Your task to perform on an android device: How do I get to the nearest T-Mobile Store? Image 0: 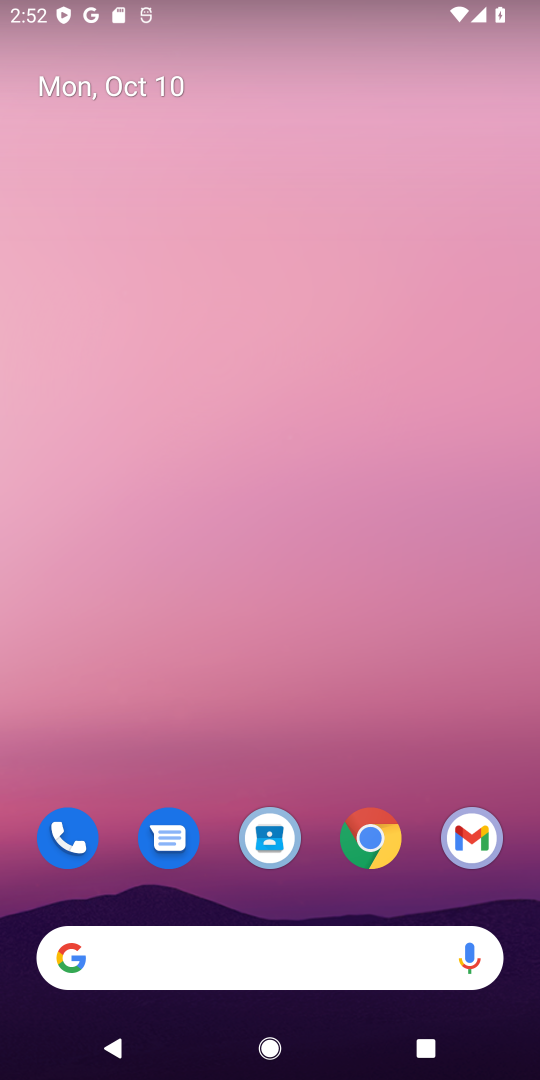
Step 0: click (229, 956)
Your task to perform on an android device: How do I get to the nearest T-Mobile Store? Image 1: 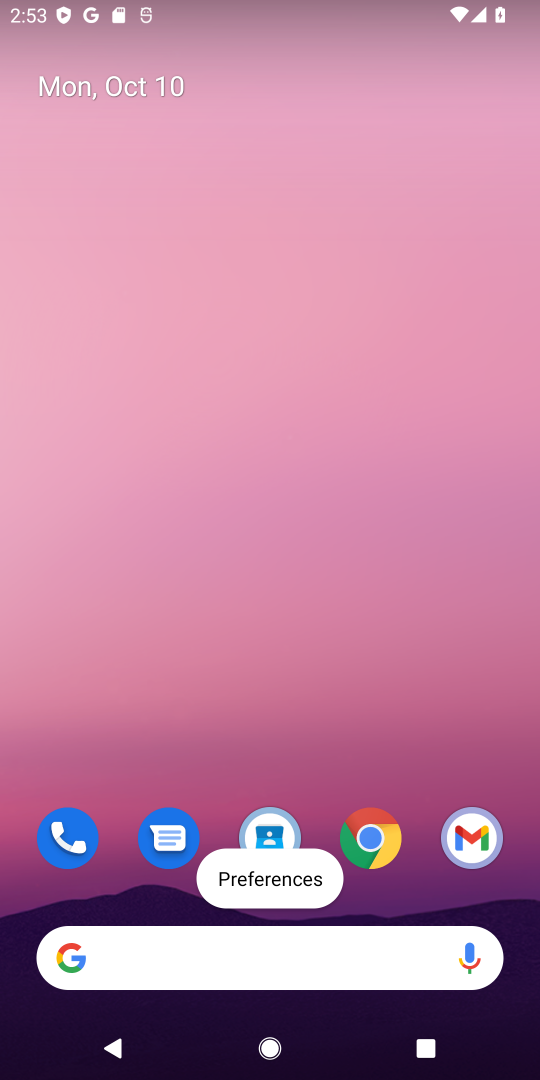
Step 1: click (211, 969)
Your task to perform on an android device: How do I get to the nearest T-Mobile Store? Image 2: 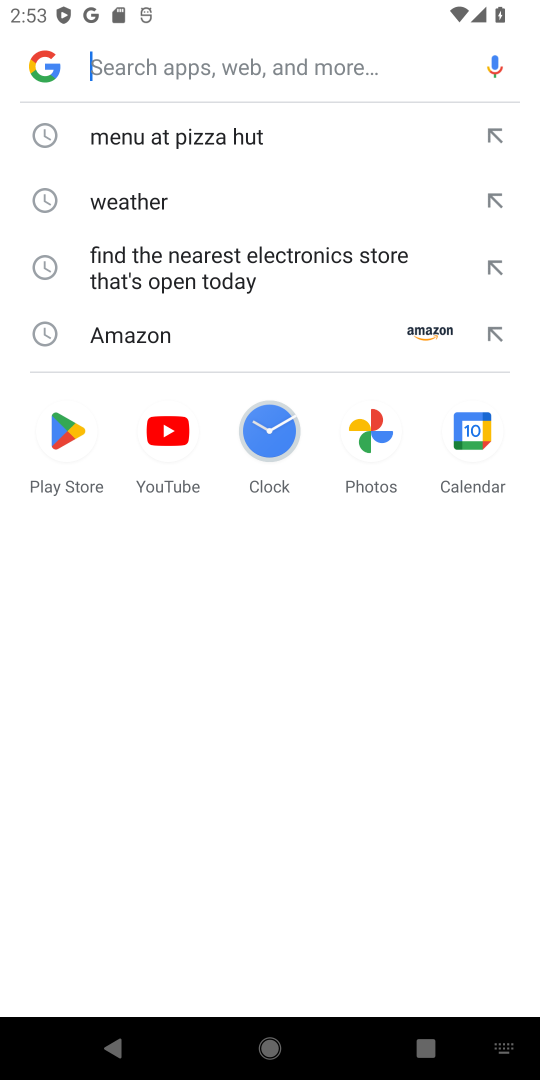
Step 2: type "nearest T-Mobile Store"
Your task to perform on an android device: How do I get to the nearest T-Mobile Store? Image 3: 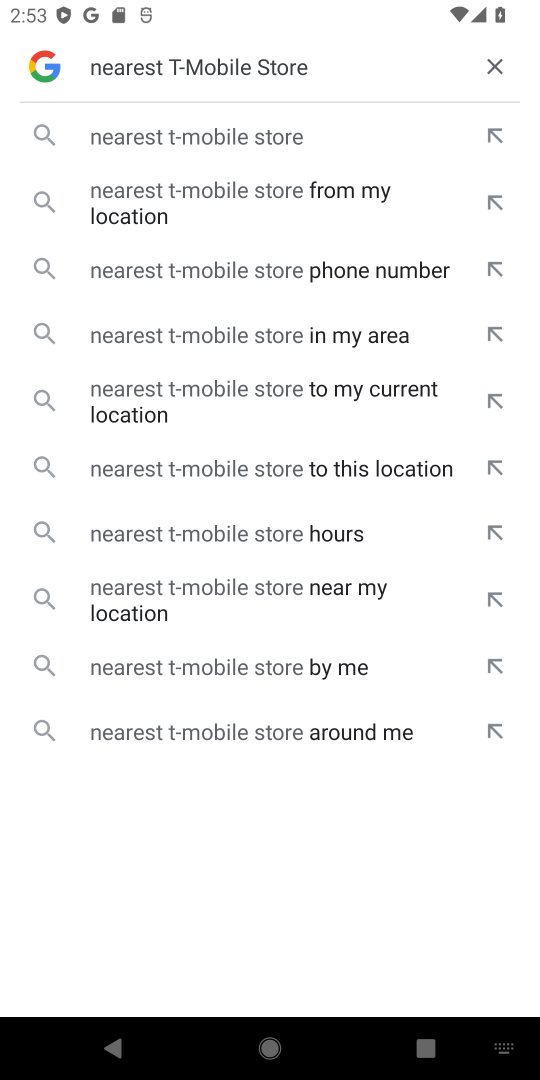
Step 3: click (283, 129)
Your task to perform on an android device: How do I get to the nearest T-Mobile Store? Image 4: 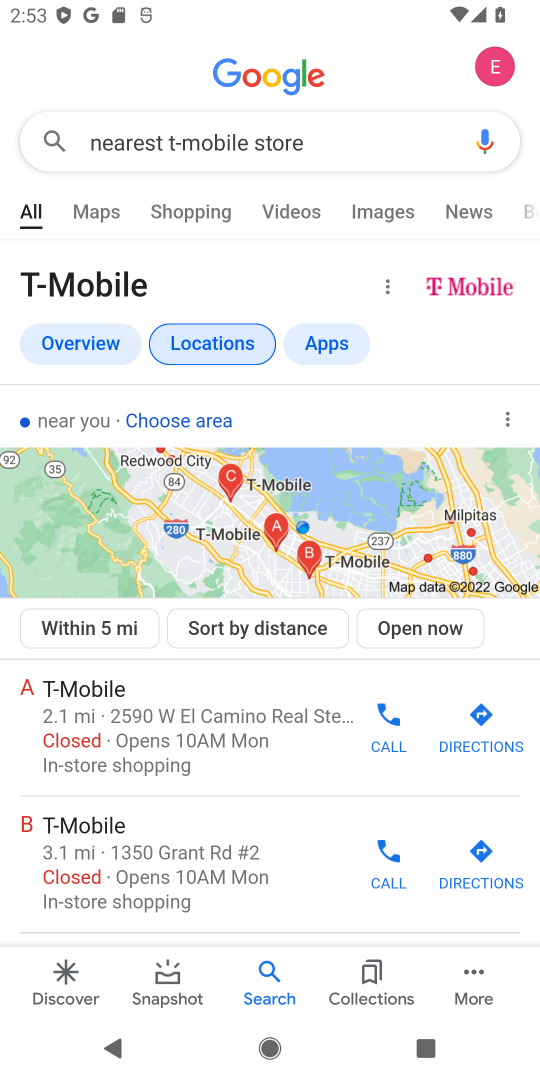
Step 4: task complete